Your task to perform on an android device: allow cookies in the chrome app Image 0: 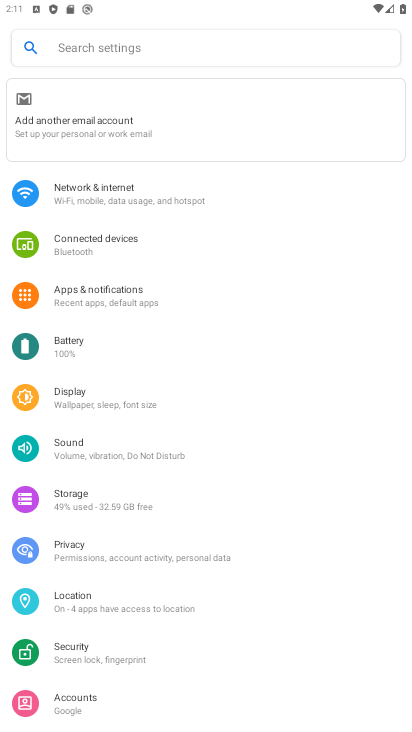
Step 0: press home button
Your task to perform on an android device: allow cookies in the chrome app Image 1: 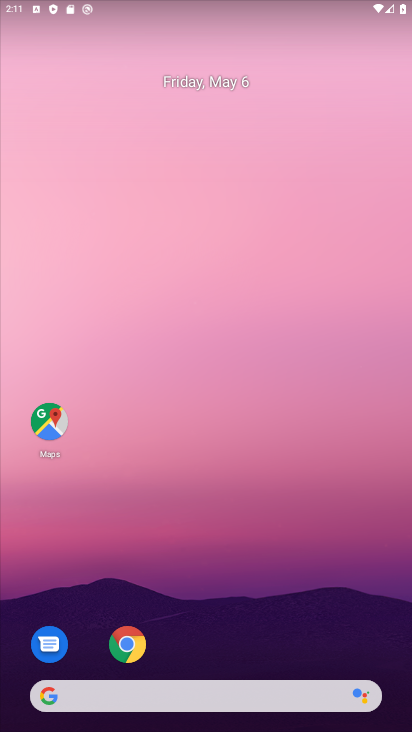
Step 1: click (114, 637)
Your task to perform on an android device: allow cookies in the chrome app Image 2: 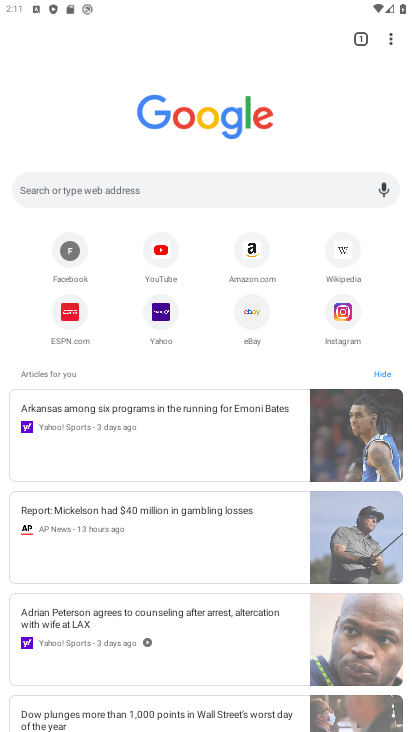
Step 2: drag from (390, 33) to (239, 337)
Your task to perform on an android device: allow cookies in the chrome app Image 3: 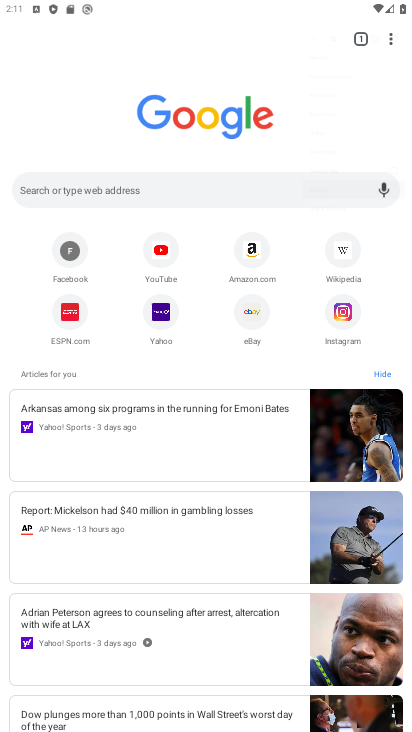
Step 3: click (239, 336)
Your task to perform on an android device: allow cookies in the chrome app Image 4: 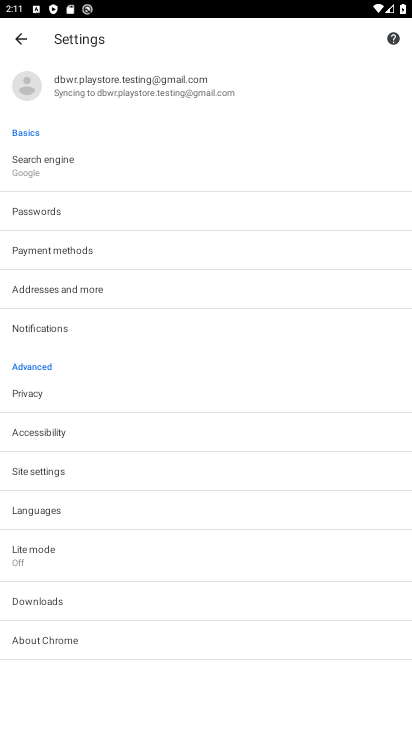
Step 4: click (68, 475)
Your task to perform on an android device: allow cookies in the chrome app Image 5: 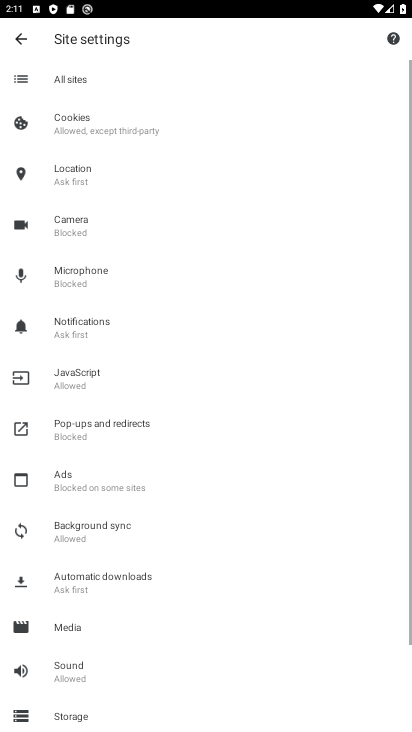
Step 5: click (153, 121)
Your task to perform on an android device: allow cookies in the chrome app Image 6: 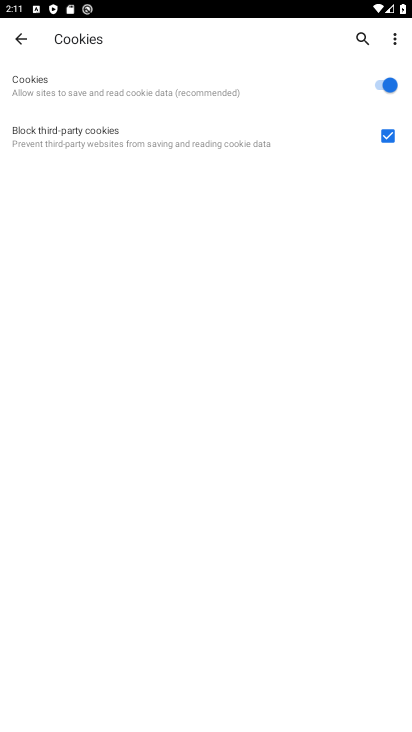
Step 6: task complete